Your task to perform on an android device: delete location history Image 0: 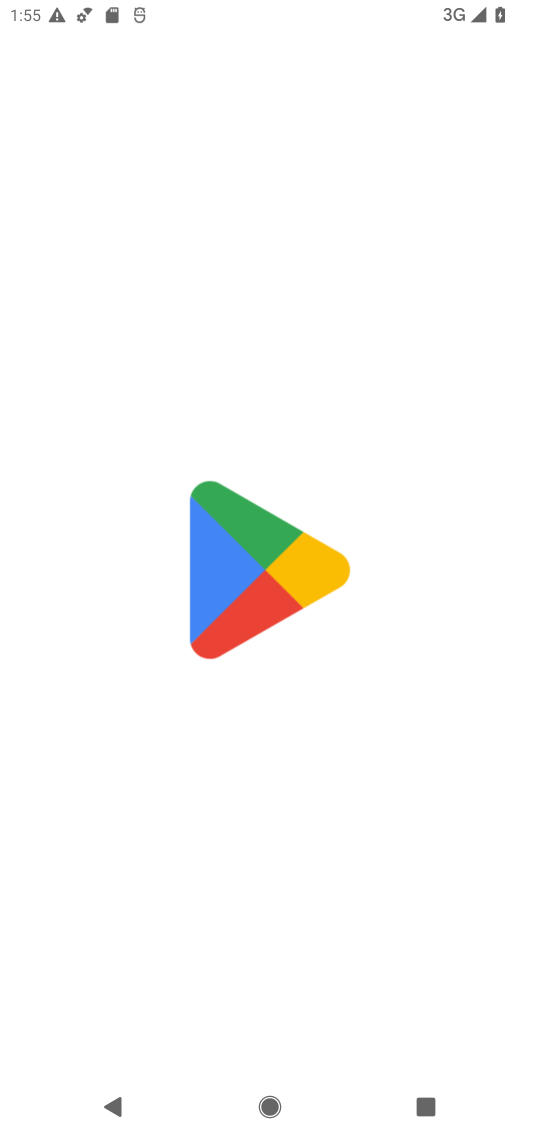
Step 0: press home button
Your task to perform on an android device: delete location history Image 1: 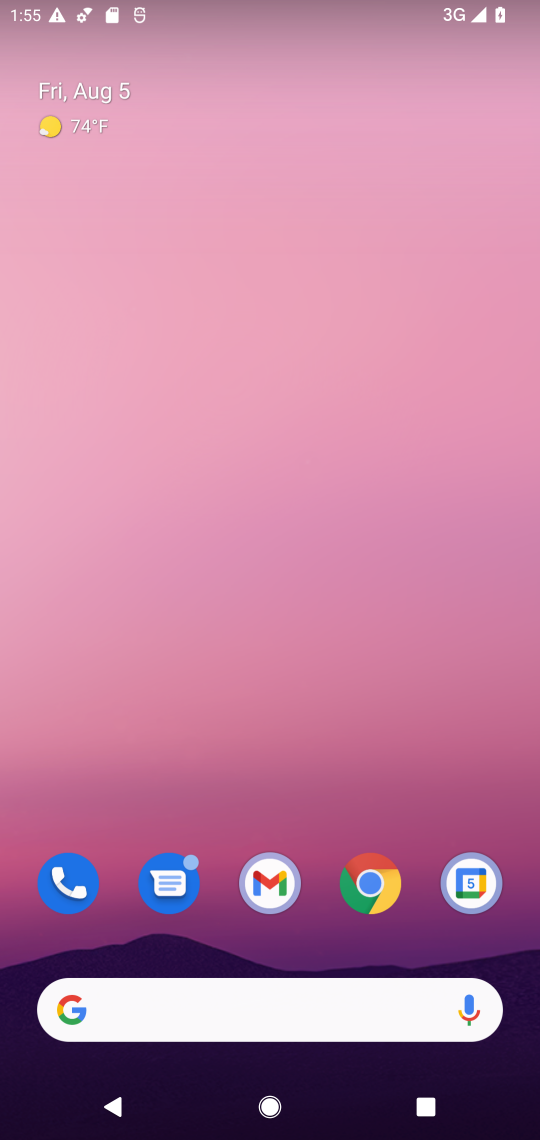
Step 1: drag from (396, 1007) to (263, 0)
Your task to perform on an android device: delete location history Image 2: 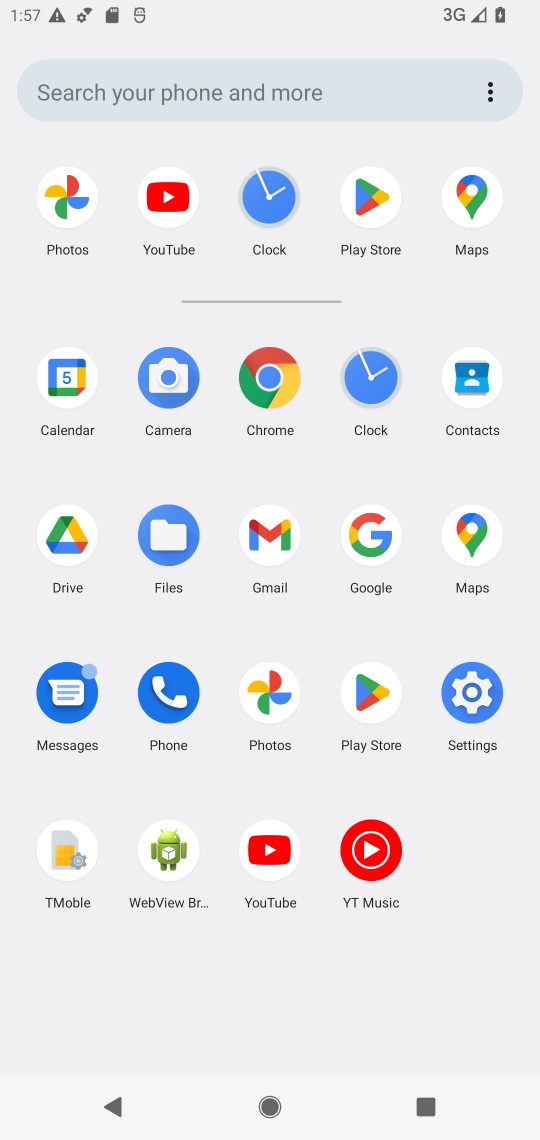
Step 2: click (467, 698)
Your task to perform on an android device: delete location history Image 3: 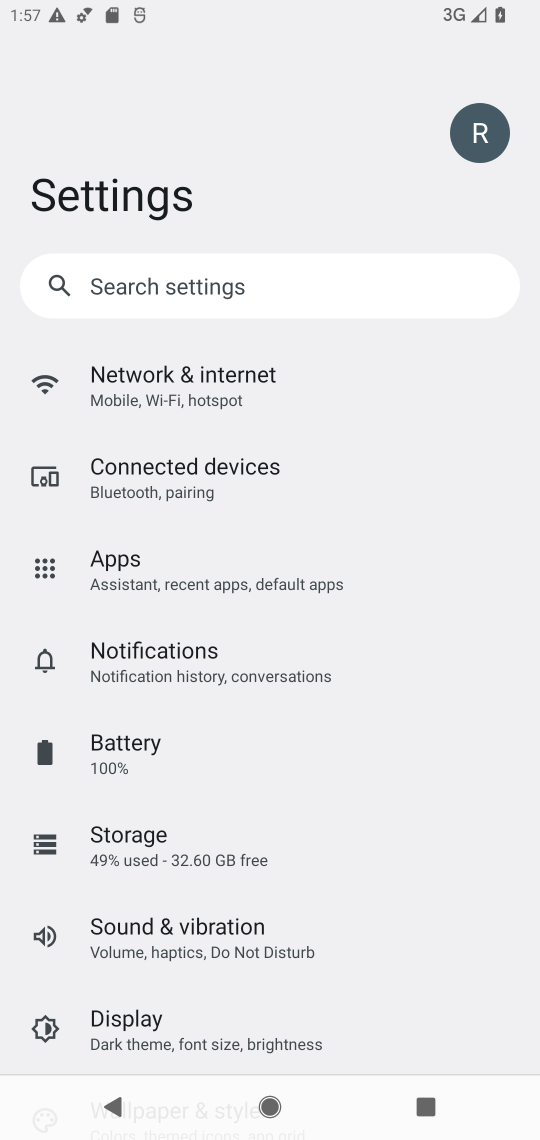
Step 3: drag from (225, 995) to (240, 62)
Your task to perform on an android device: delete location history Image 4: 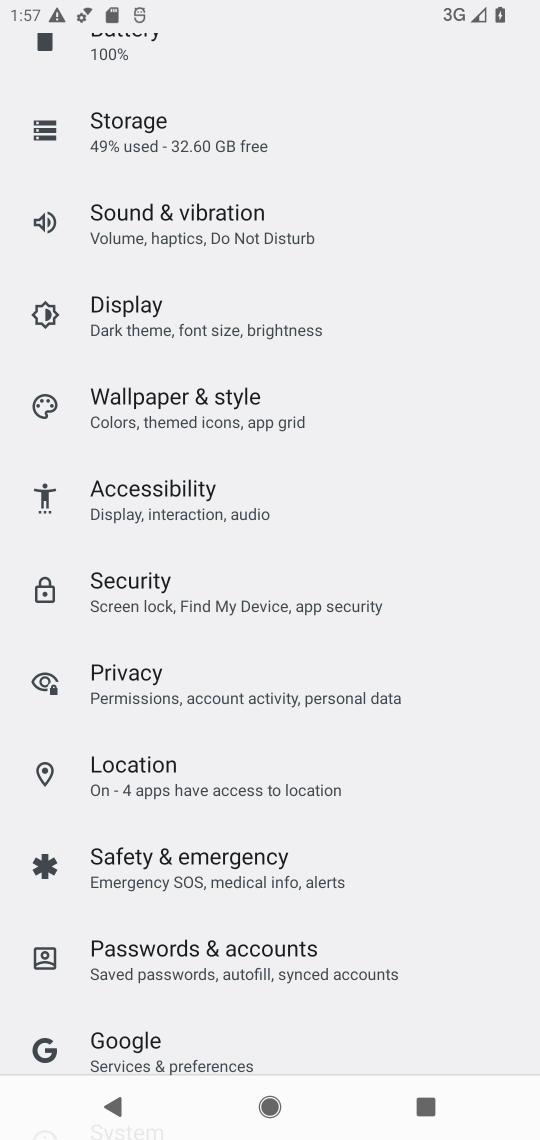
Step 4: click (185, 771)
Your task to perform on an android device: delete location history Image 5: 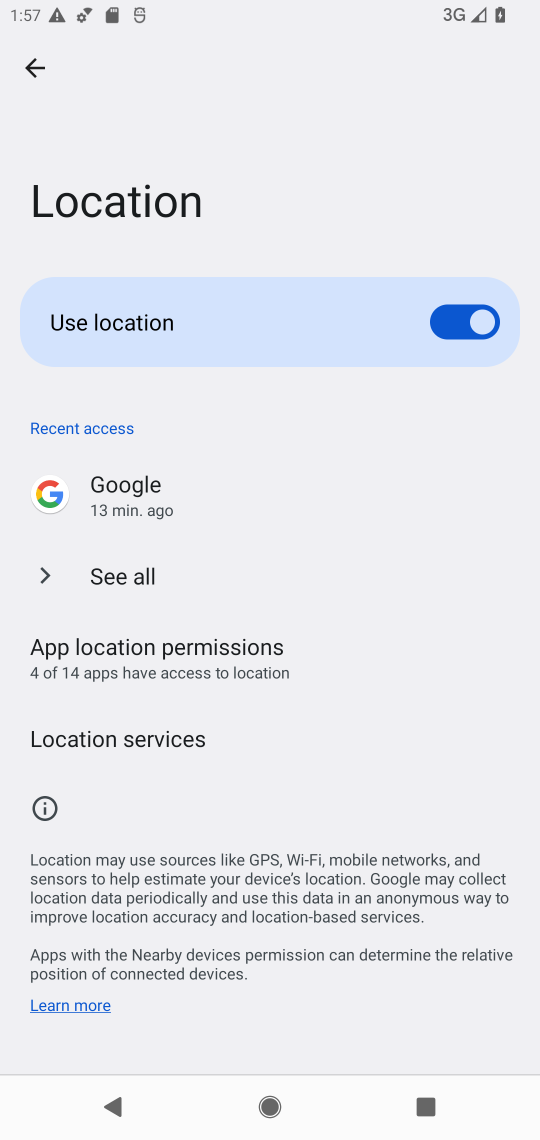
Step 5: click (157, 735)
Your task to perform on an android device: delete location history Image 6: 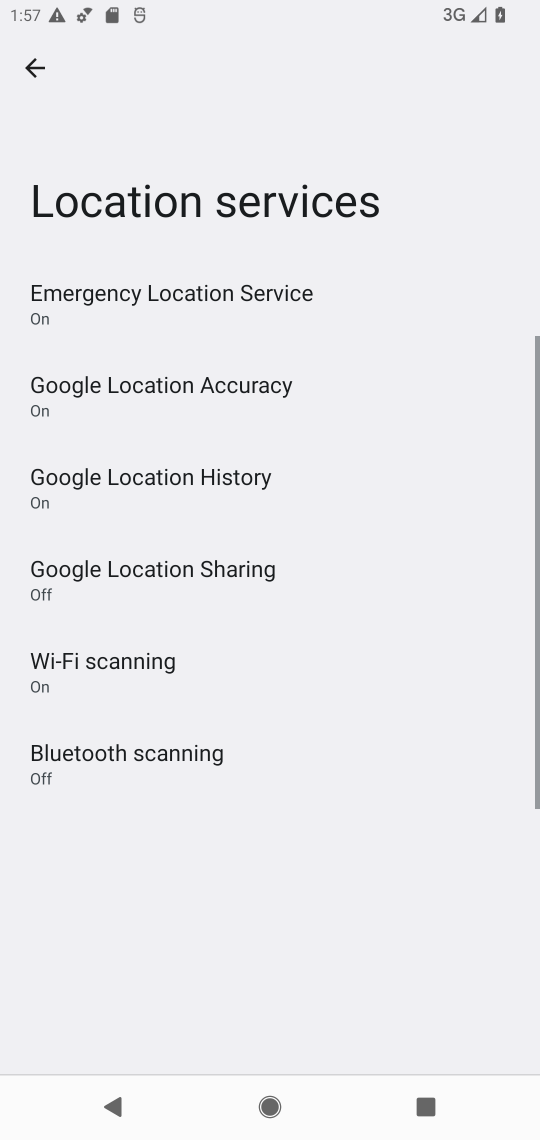
Step 6: click (167, 511)
Your task to perform on an android device: delete location history Image 7: 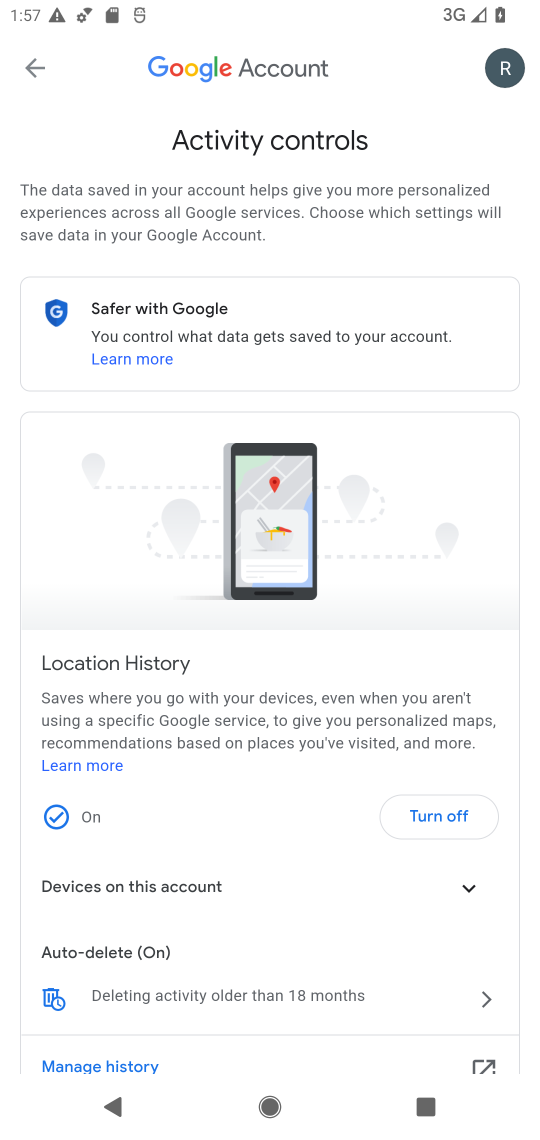
Step 7: click (236, 1018)
Your task to perform on an android device: delete location history Image 8: 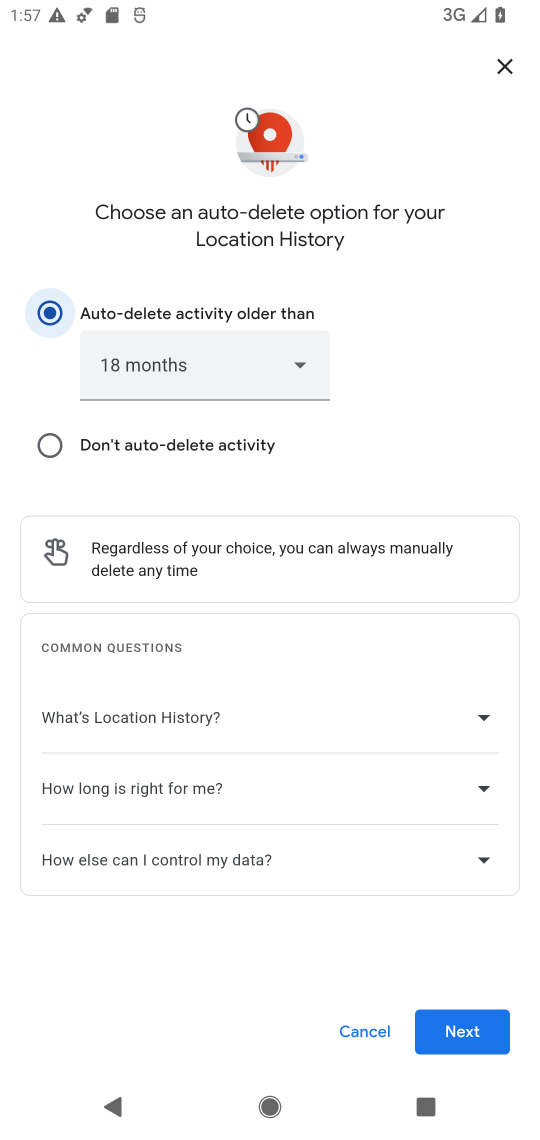
Step 8: click (465, 1024)
Your task to perform on an android device: delete location history Image 9: 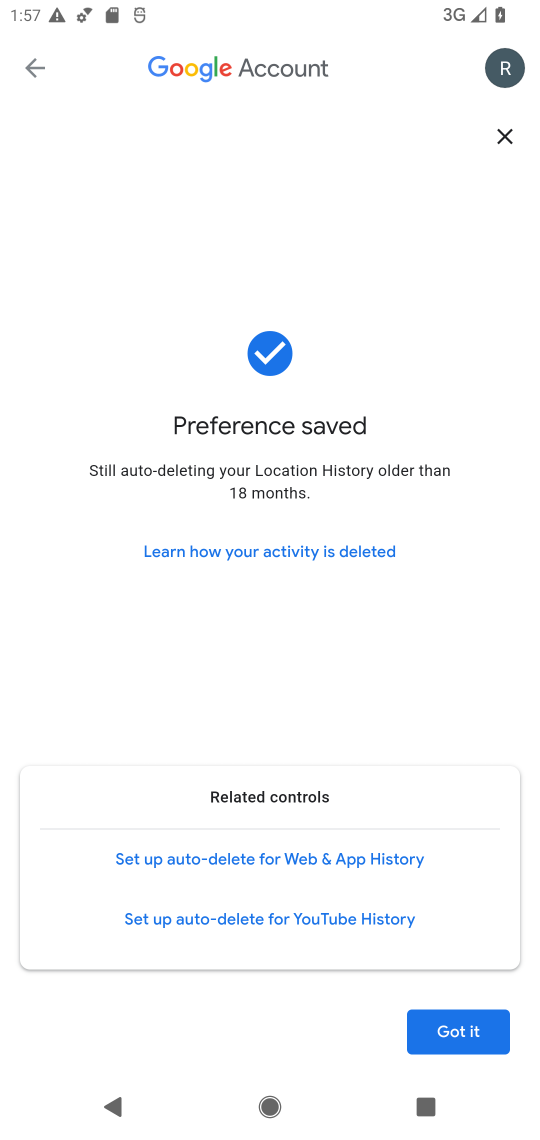
Step 9: click (466, 1048)
Your task to perform on an android device: delete location history Image 10: 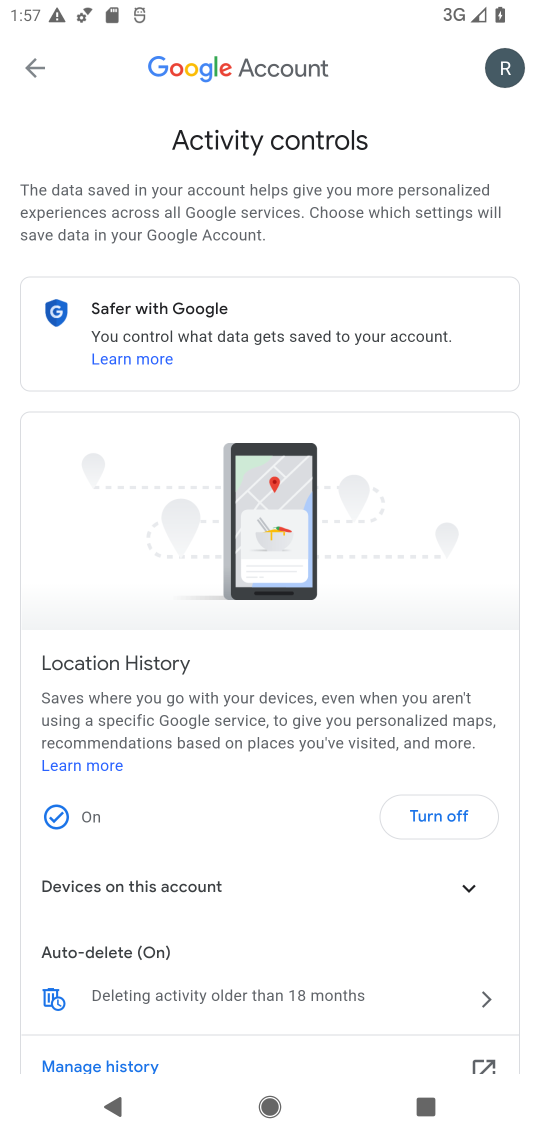
Step 10: task complete